Your task to perform on an android device: see tabs open on other devices in the chrome app Image 0: 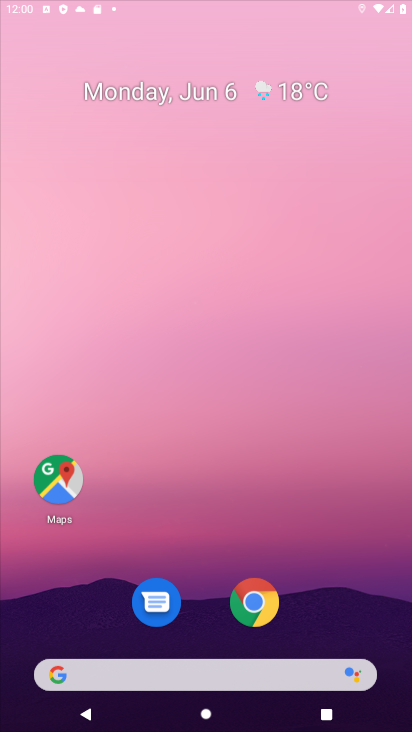
Step 0: click (260, 598)
Your task to perform on an android device: see tabs open on other devices in the chrome app Image 1: 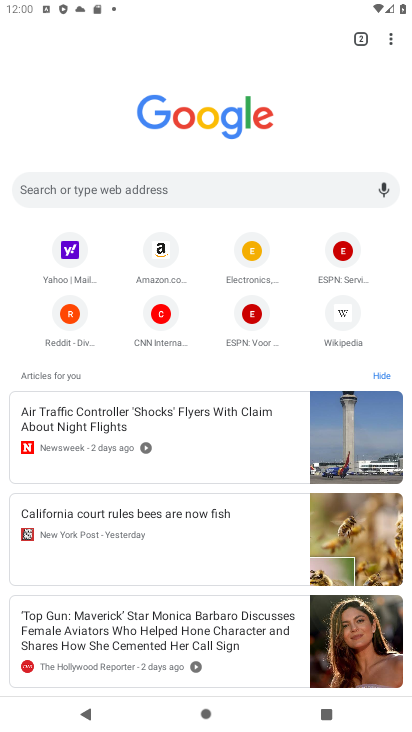
Step 1: click (389, 45)
Your task to perform on an android device: see tabs open on other devices in the chrome app Image 2: 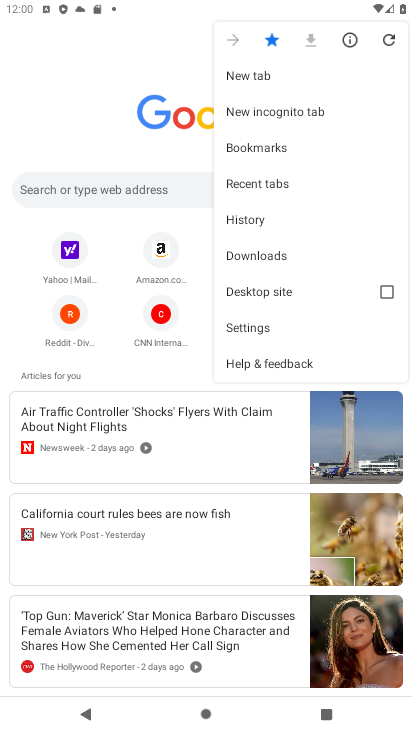
Step 2: click (301, 156)
Your task to perform on an android device: see tabs open on other devices in the chrome app Image 3: 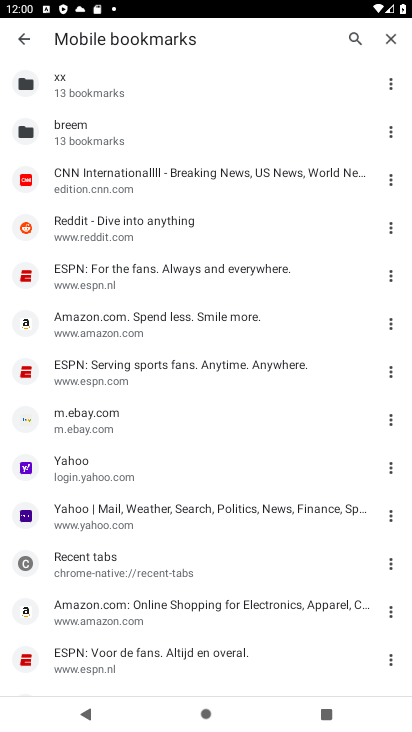
Step 3: task complete